Your task to perform on an android device: create a new album in the google photos Image 0: 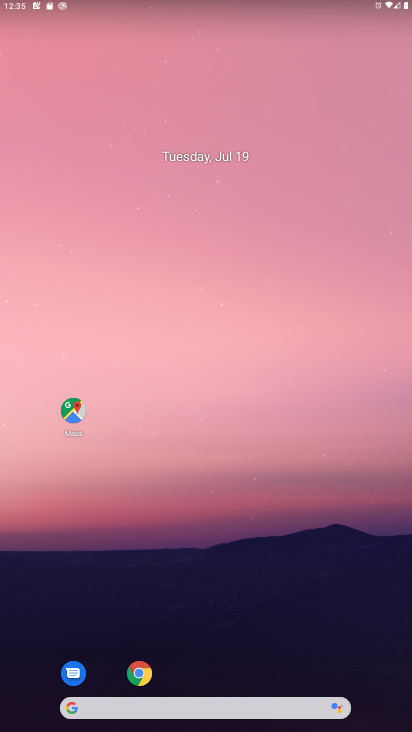
Step 0: drag from (172, 525) to (172, 200)
Your task to perform on an android device: create a new album in the google photos Image 1: 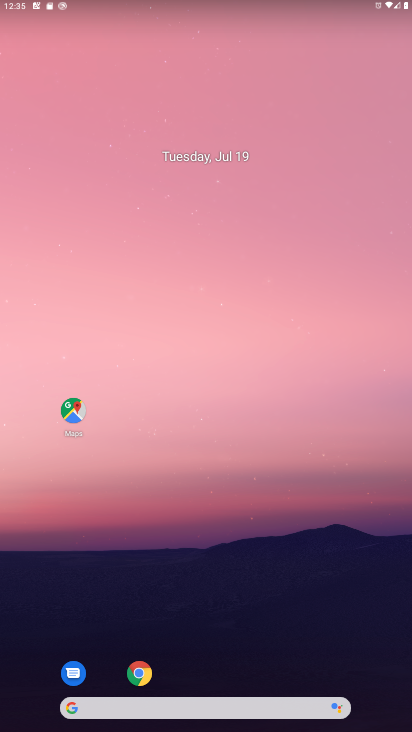
Step 1: drag from (213, 654) to (258, 116)
Your task to perform on an android device: create a new album in the google photos Image 2: 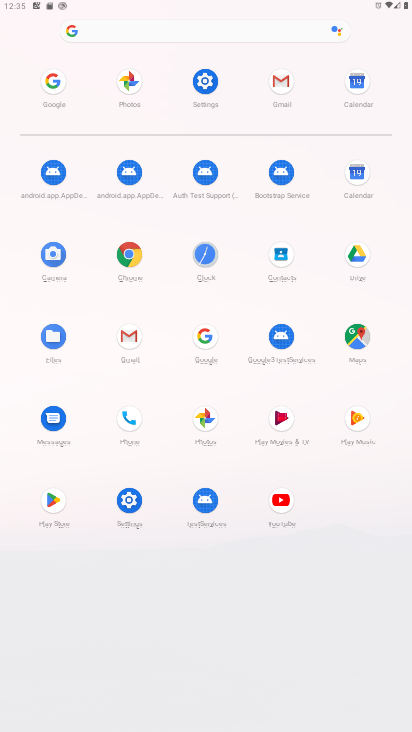
Step 2: click (208, 421)
Your task to perform on an android device: create a new album in the google photos Image 3: 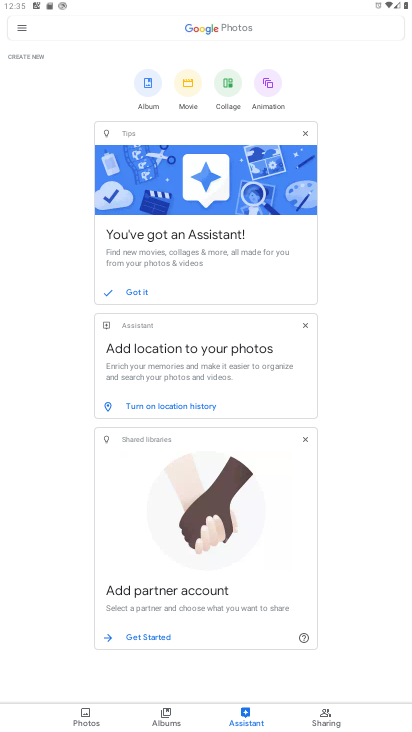
Step 3: click (81, 714)
Your task to perform on an android device: create a new album in the google photos Image 4: 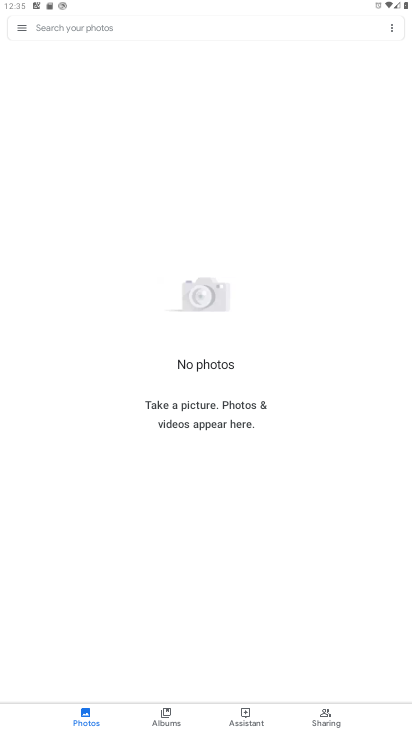
Step 4: click (392, 32)
Your task to perform on an android device: create a new album in the google photos Image 5: 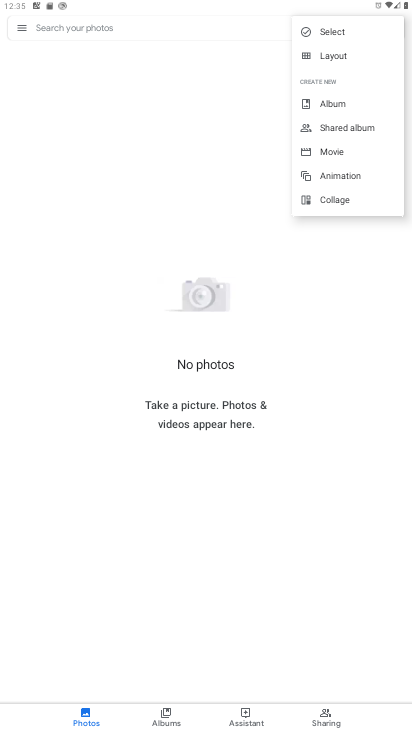
Step 5: click (331, 99)
Your task to perform on an android device: create a new album in the google photos Image 6: 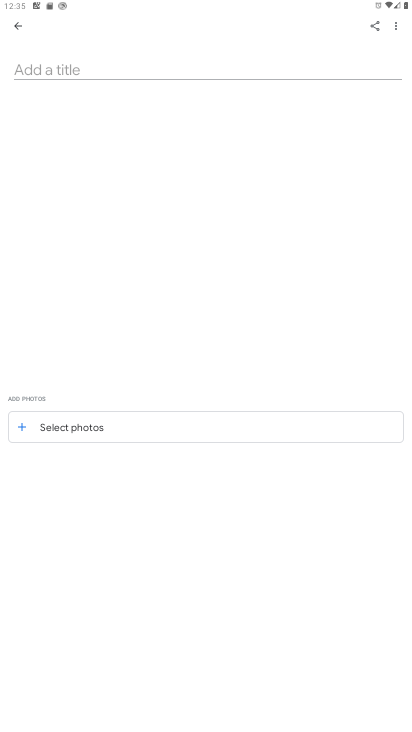
Step 6: click (99, 426)
Your task to perform on an android device: create a new album in the google photos Image 7: 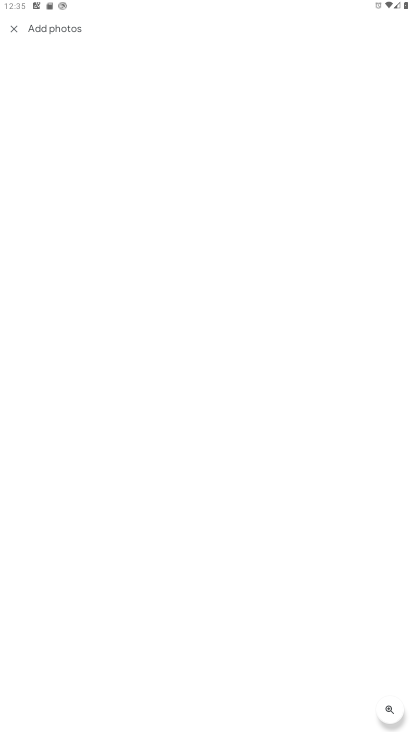
Step 7: click (11, 36)
Your task to perform on an android device: create a new album in the google photos Image 8: 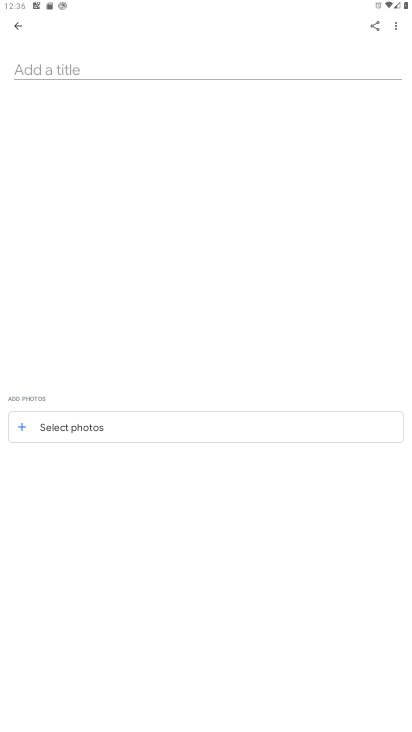
Step 8: click (47, 69)
Your task to perform on an android device: create a new album in the google photos Image 9: 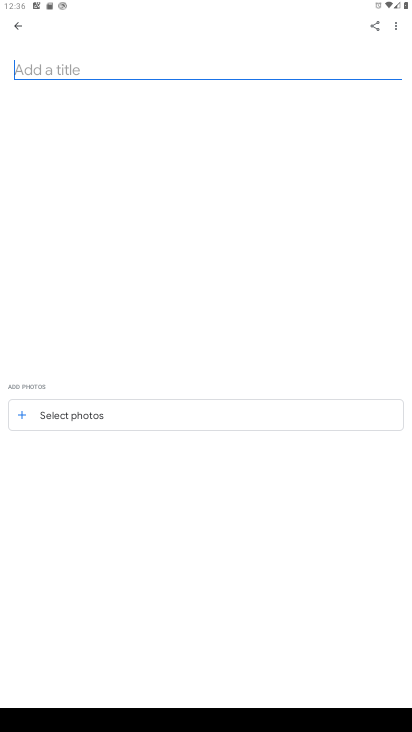
Step 9: type "tgfjghj"
Your task to perform on an android device: create a new album in the google photos Image 10: 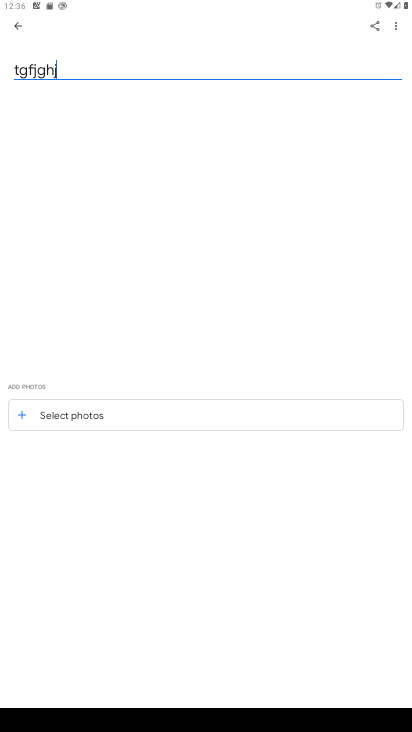
Step 10: click (21, 24)
Your task to perform on an android device: create a new album in the google photos Image 11: 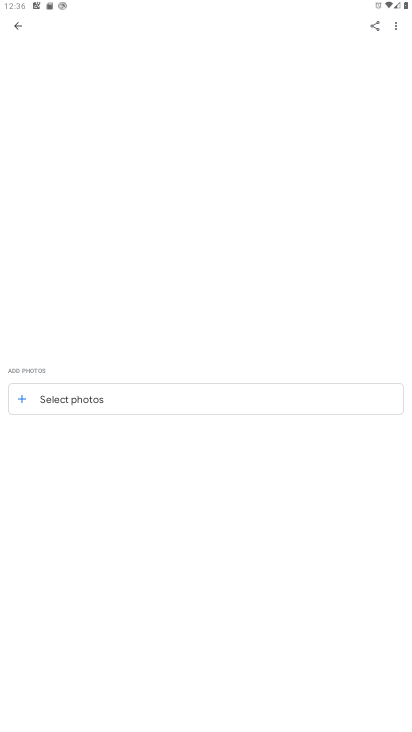
Step 11: task complete